Your task to perform on an android device: Search for sushi restaurants on Maps Image 0: 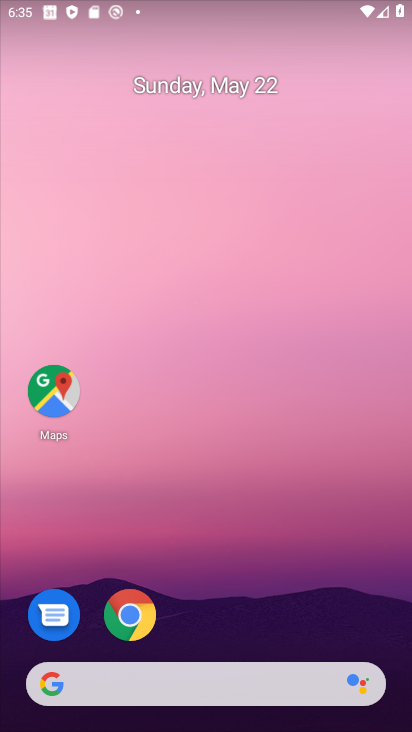
Step 0: click (53, 389)
Your task to perform on an android device: Search for sushi restaurants on Maps Image 1: 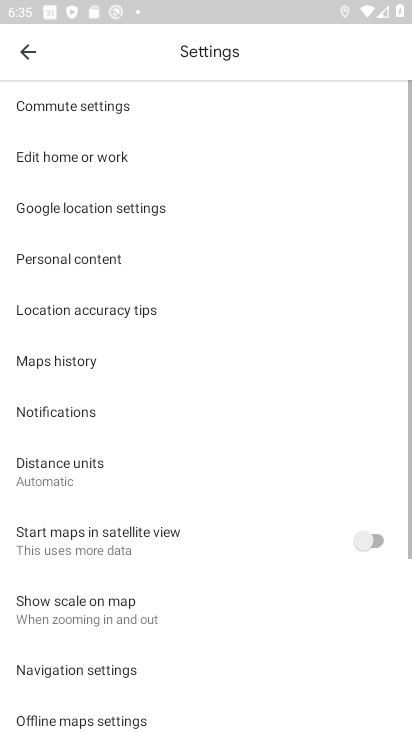
Step 1: click (31, 48)
Your task to perform on an android device: Search for sushi restaurants on Maps Image 2: 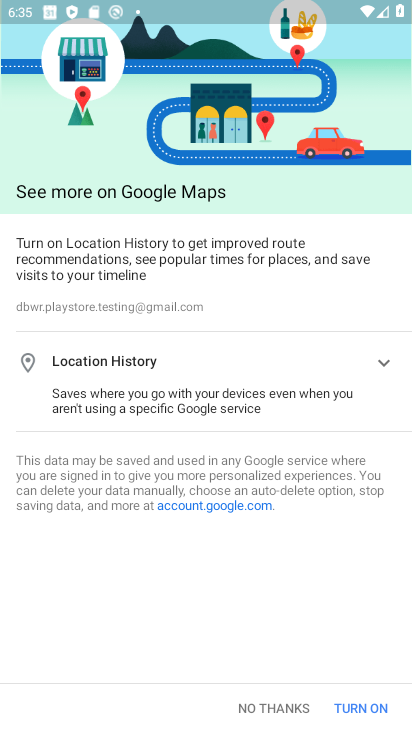
Step 2: click (349, 705)
Your task to perform on an android device: Search for sushi restaurants on Maps Image 3: 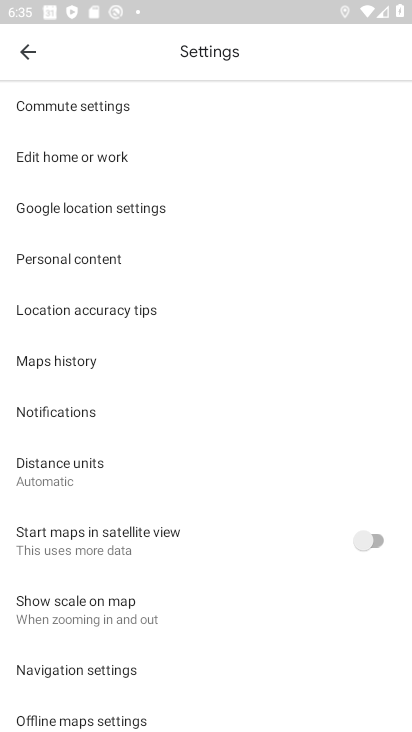
Step 3: click (30, 50)
Your task to perform on an android device: Search for sushi restaurants on Maps Image 4: 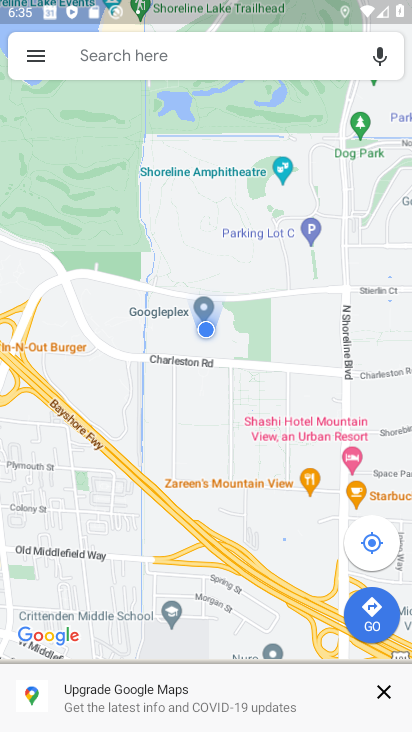
Step 4: click (128, 49)
Your task to perform on an android device: Search for sushi restaurants on Maps Image 5: 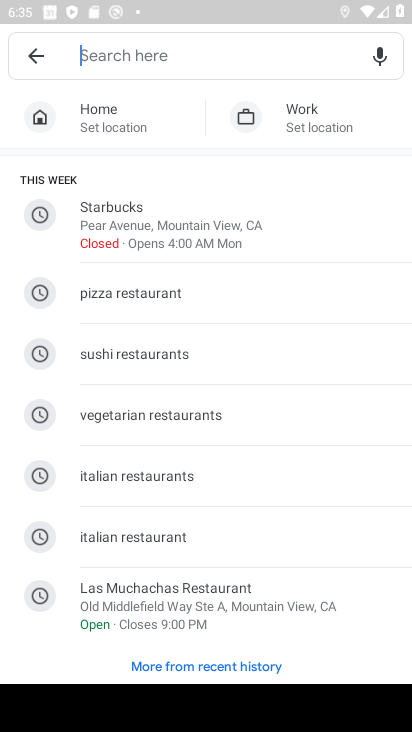
Step 5: click (145, 353)
Your task to perform on an android device: Search for sushi restaurants on Maps Image 6: 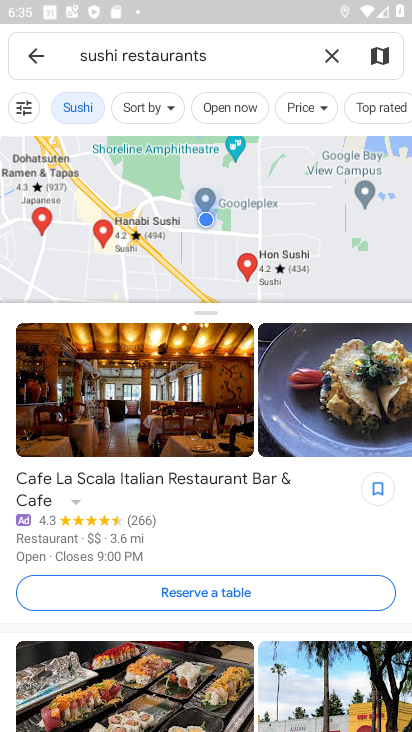
Step 6: task complete